Your task to perform on an android device: What's the weather today? Image 0: 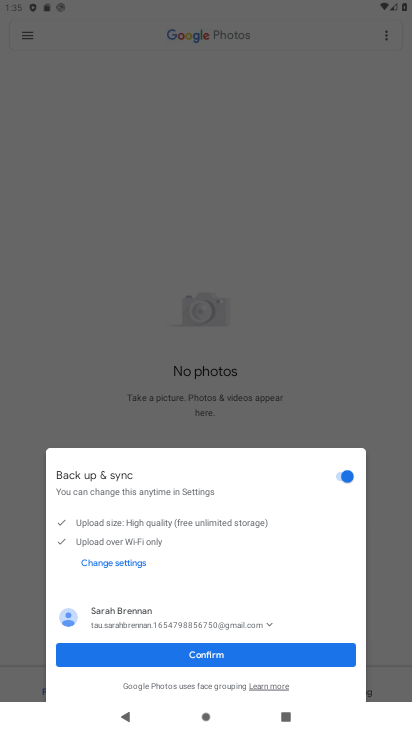
Step 0: press home button
Your task to perform on an android device: What's the weather today? Image 1: 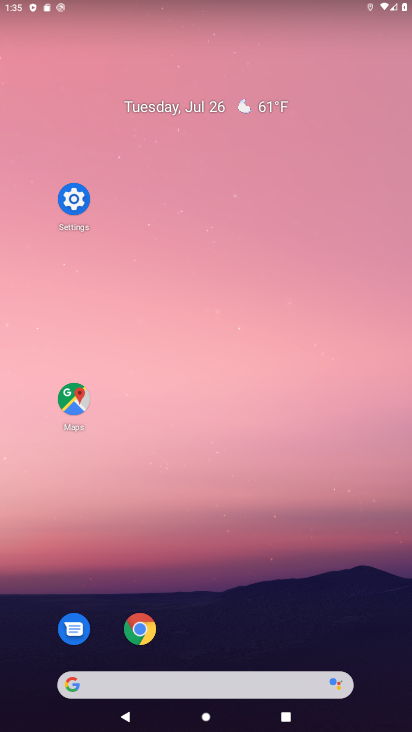
Step 1: drag from (261, 605) to (299, 248)
Your task to perform on an android device: What's the weather today? Image 2: 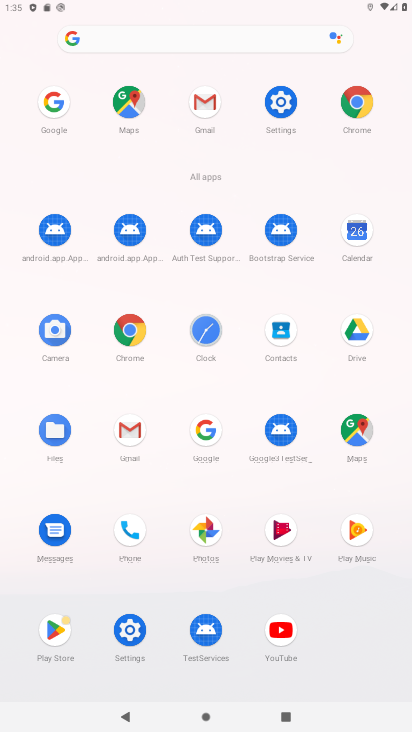
Step 2: drag from (210, 423) to (95, 280)
Your task to perform on an android device: What's the weather today? Image 3: 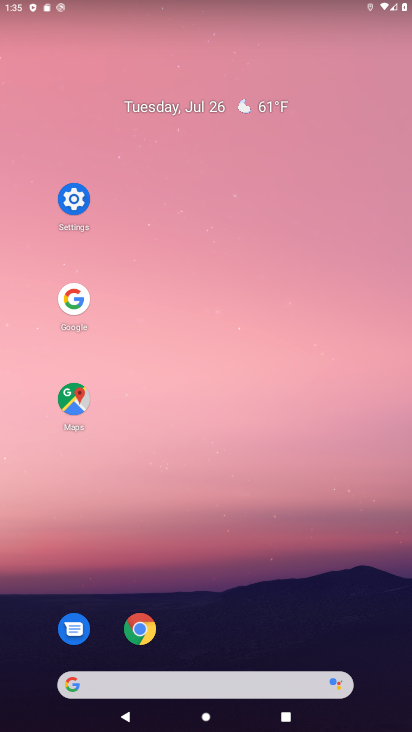
Step 3: click (81, 291)
Your task to perform on an android device: What's the weather today? Image 4: 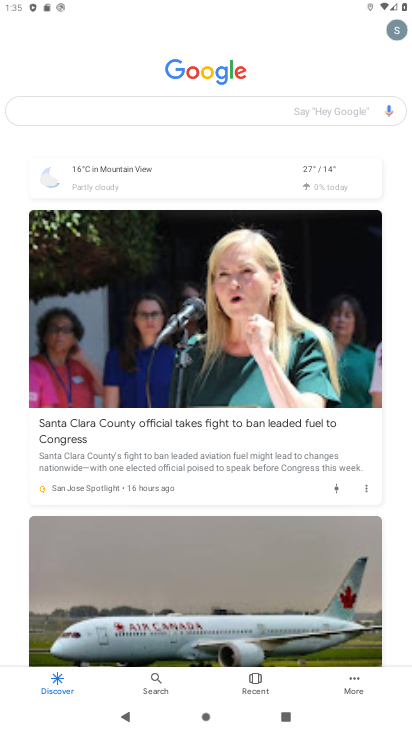
Step 4: click (187, 118)
Your task to perform on an android device: What's the weather today? Image 5: 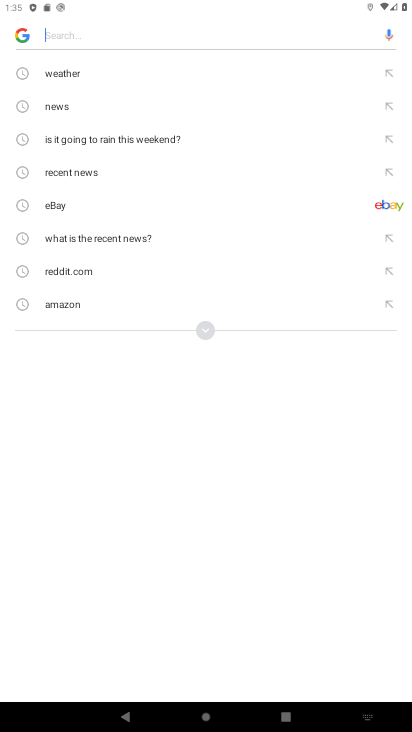
Step 5: click (82, 79)
Your task to perform on an android device: What's the weather today? Image 6: 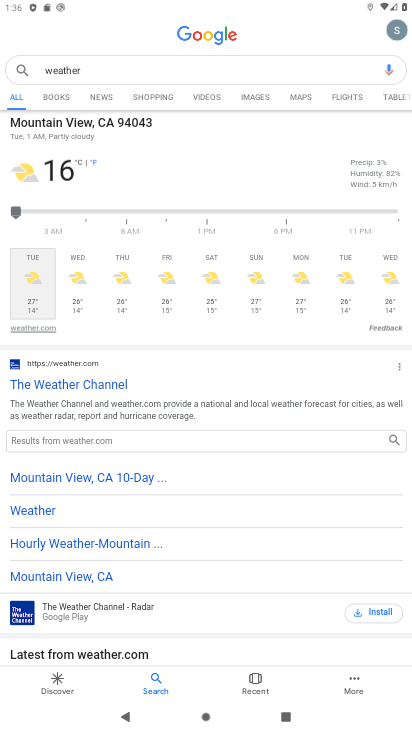
Step 6: task complete